Your task to perform on an android device: clear history in the chrome app Image 0: 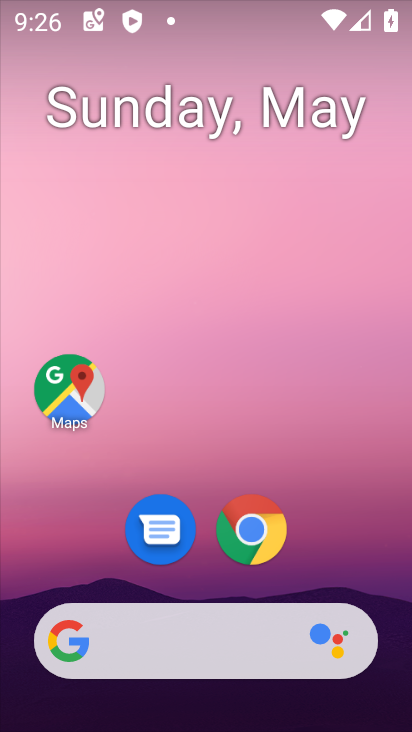
Step 0: click (277, 514)
Your task to perform on an android device: clear history in the chrome app Image 1: 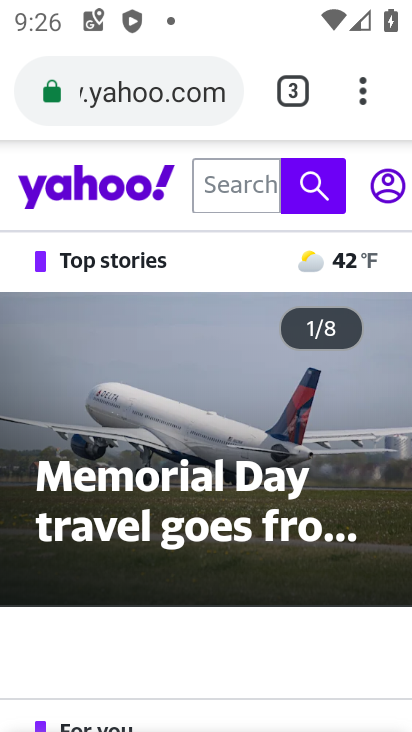
Step 1: click (361, 94)
Your task to perform on an android device: clear history in the chrome app Image 2: 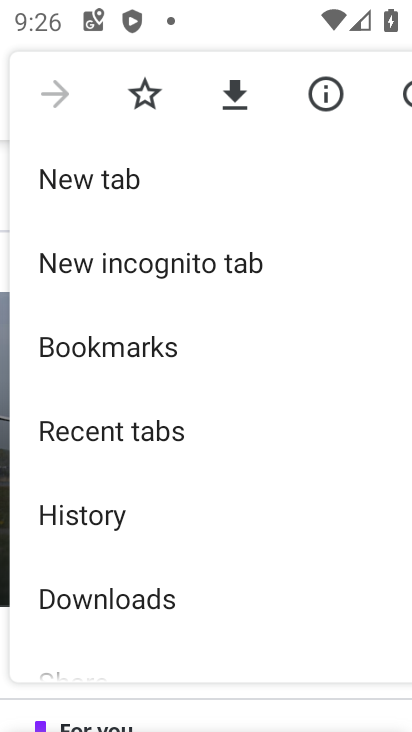
Step 2: click (148, 485)
Your task to perform on an android device: clear history in the chrome app Image 3: 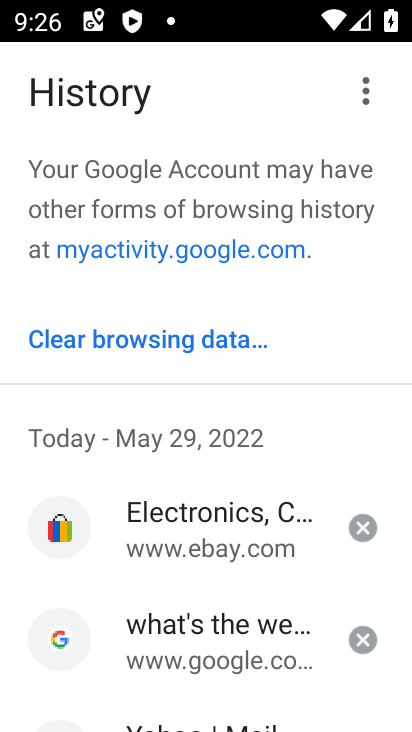
Step 3: click (139, 330)
Your task to perform on an android device: clear history in the chrome app Image 4: 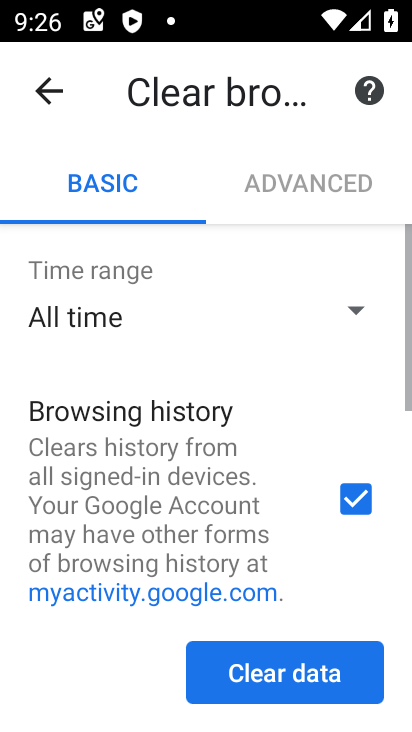
Step 4: click (329, 660)
Your task to perform on an android device: clear history in the chrome app Image 5: 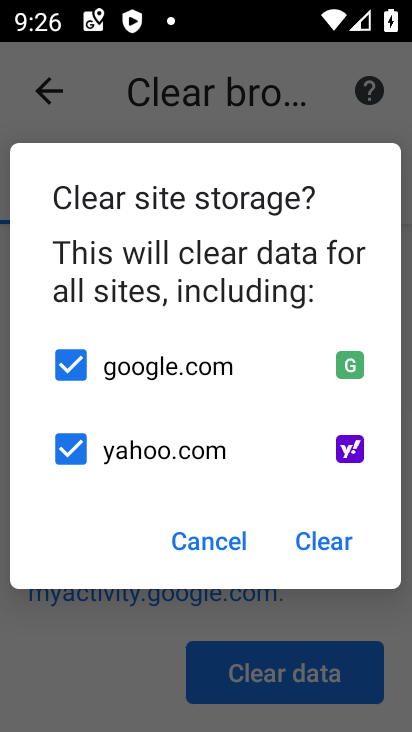
Step 5: click (329, 660)
Your task to perform on an android device: clear history in the chrome app Image 6: 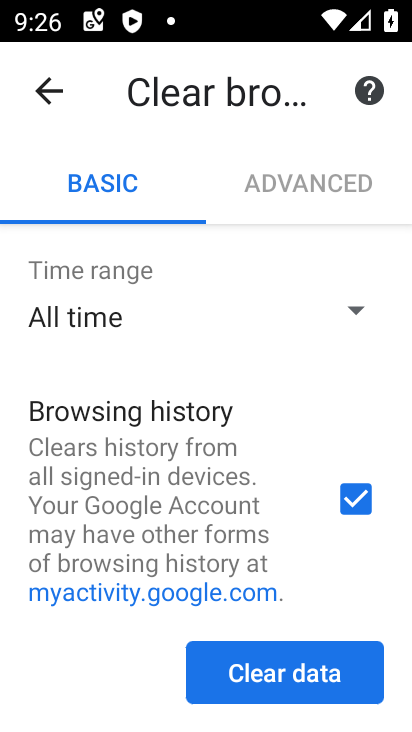
Step 6: click (291, 669)
Your task to perform on an android device: clear history in the chrome app Image 7: 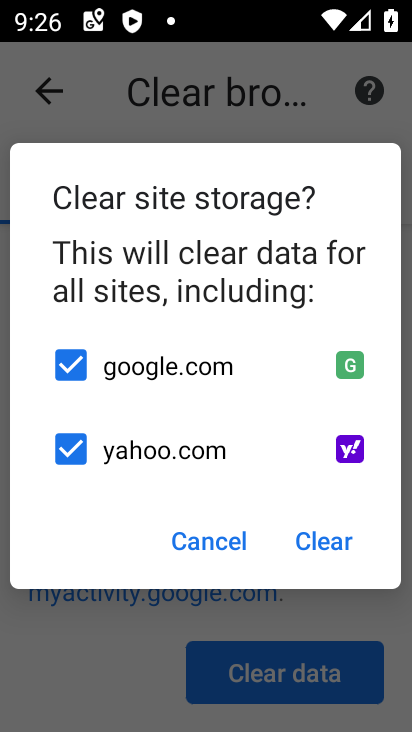
Step 7: click (333, 550)
Your task to perform on an android device: clear history in the chrome app Image 8: 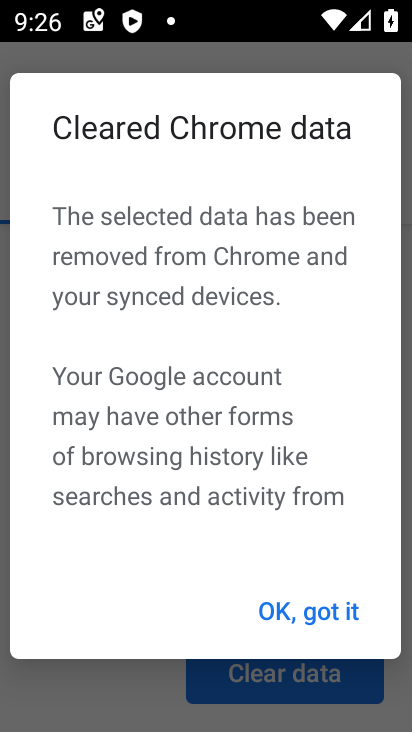
Step 8: click (318, 621)
Your task to perform on an android device: clear history in the chrome app Image 9: 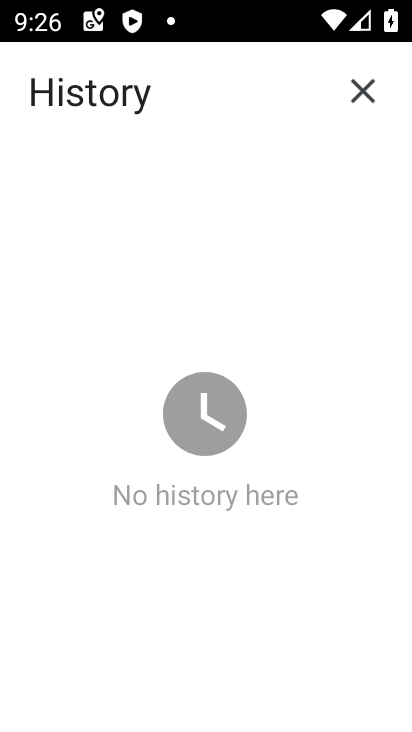
Step 9: task complete